Your task to perform on an android device: turn on translation in the chrome app Image 0: 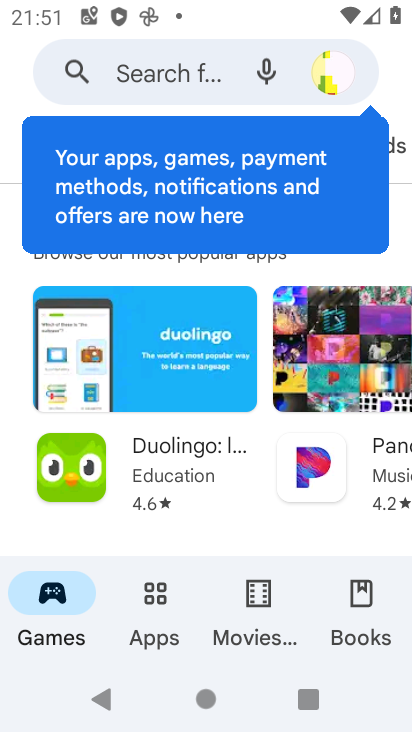
Step 0: press home button
Your task to perform on an android device: turn on translation in the chrome app Image 1: 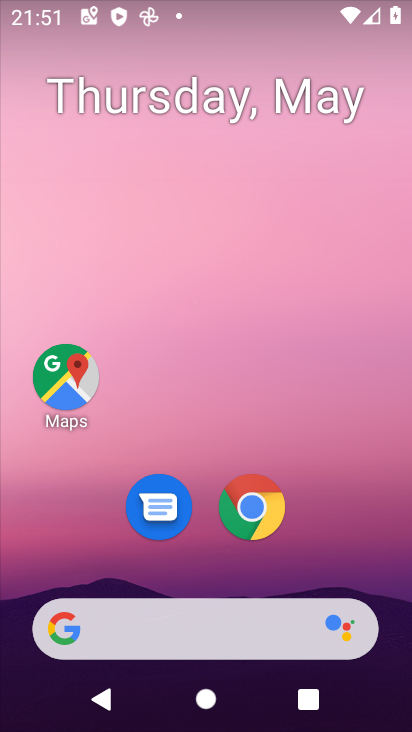
Step 1: drag from (278, 661) to (388, 252)
Your task to perform on an android device: turn on translation in the chrome app Image 2: 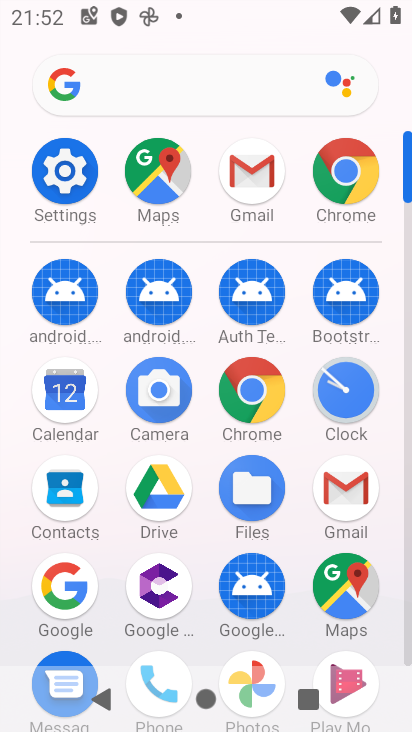
Step 2: click (353, 147)
Your task to perform on an android device: turn on translation in the chrome app Image 3: 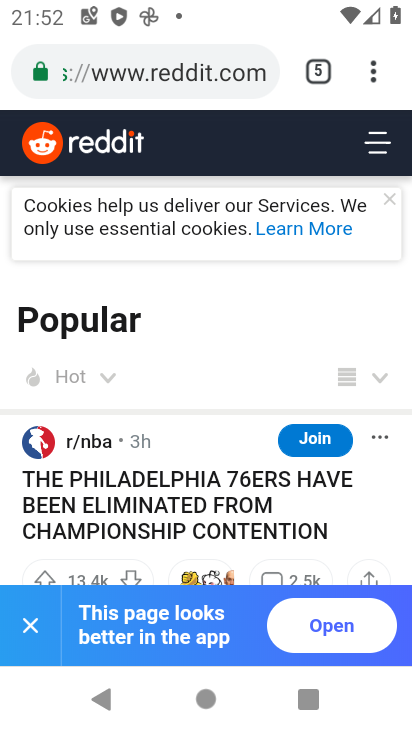
Step 3: click (364, 79)
Your task to perform on an android device: turn on translation in the chrome app Image 4: 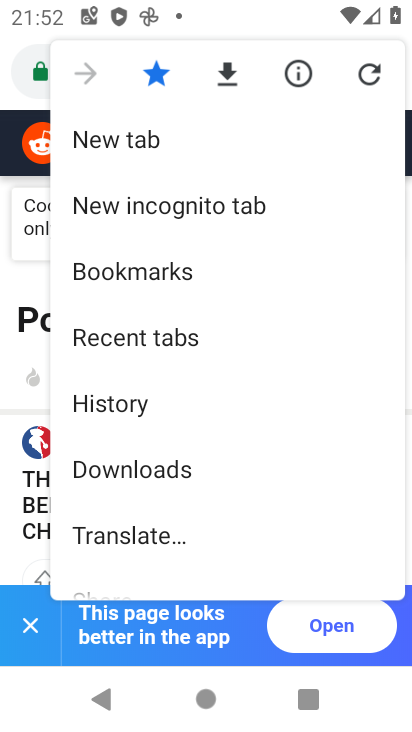
Step 4: drag from (187, 533) to (244, 260)
Your task to perform on an android device: turn on translation in the chrome app Image 5: 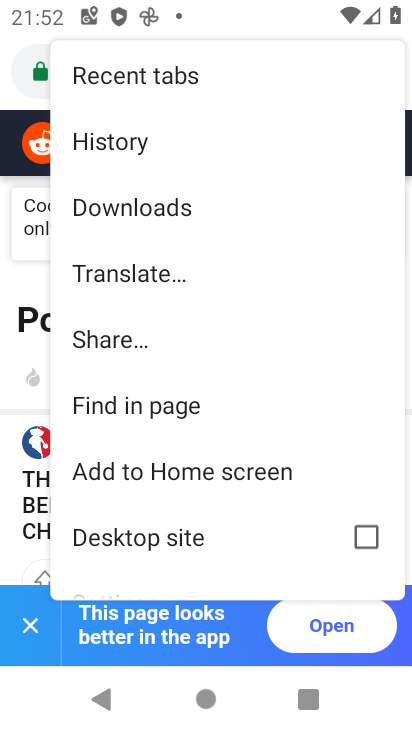
Step 5: drag from (114, 525) to (184, 333)
Your task to perform on an android device: turn on translation in the chrome app Image 6: 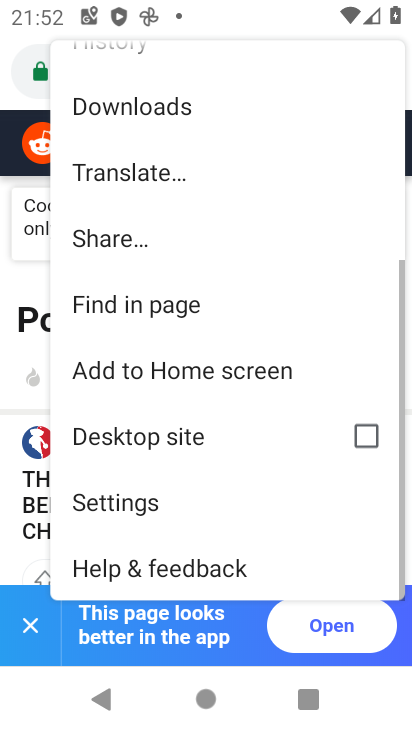
Step 6: click (141, 514)
Your task to perform on an android device: turn on translation in the chrome app Image 7: 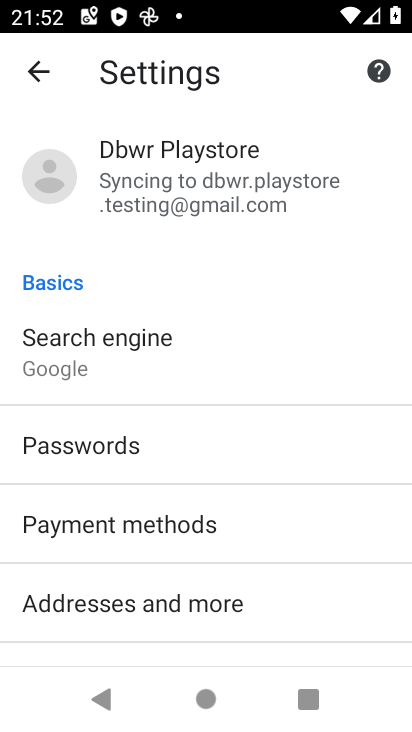
Step 7: drag from (139, 539) to (188, 408)
Your task to perform on an android device: turn on translation in the chrome app Image 8: 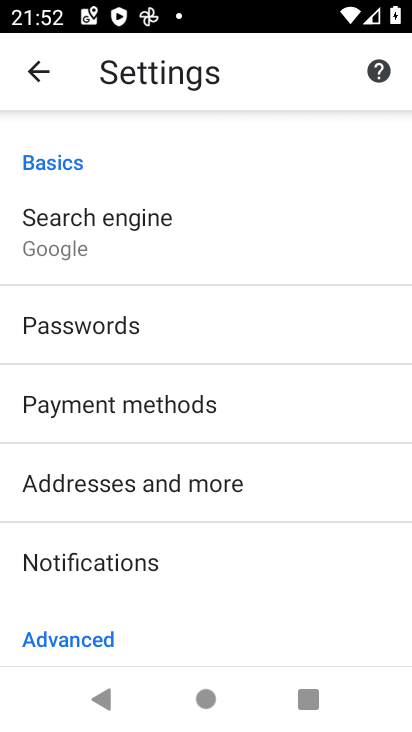
Step 8: drag from (114, 540) to (168, 318)
Your task to perform on an android device: turn on translation in the chrome app Image 9: 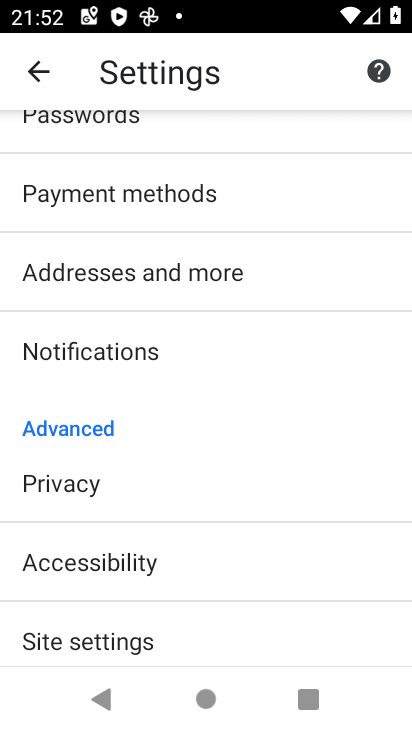
Step 9: drag from (135, 603) to (210, 339)
Your task to perform on an android device: turn on translation in the chrome app Image 10: 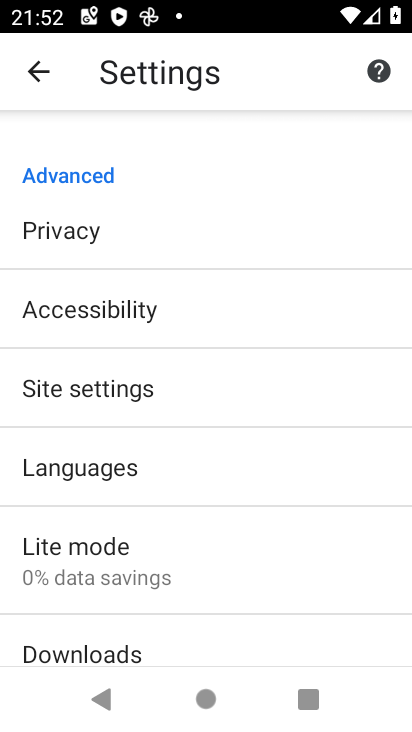
Step 10: click (101, 482)
Your task to perform on an android device: turn on translation in the chrome app Image 11: 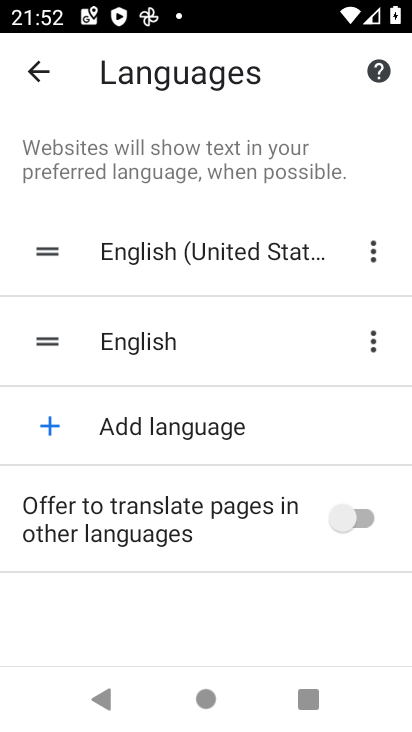
Step 11: click (185, 511)
Your task to perform on an android device: turn on translation in the chrome app Image 12: 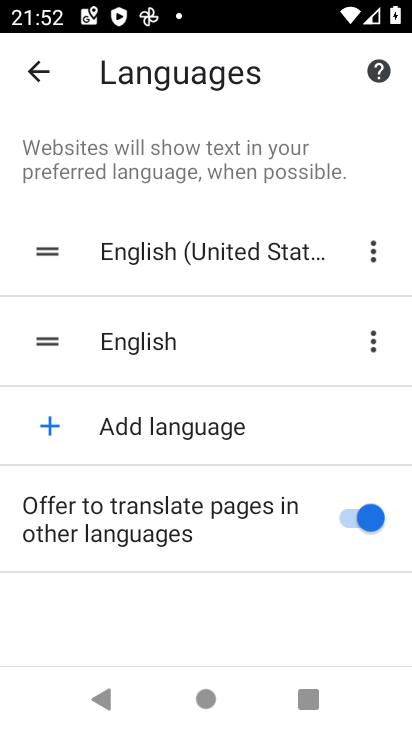
Step 12: task complete